Your task to perform on an android device: turn off smart reply in the gmail app Image 0: 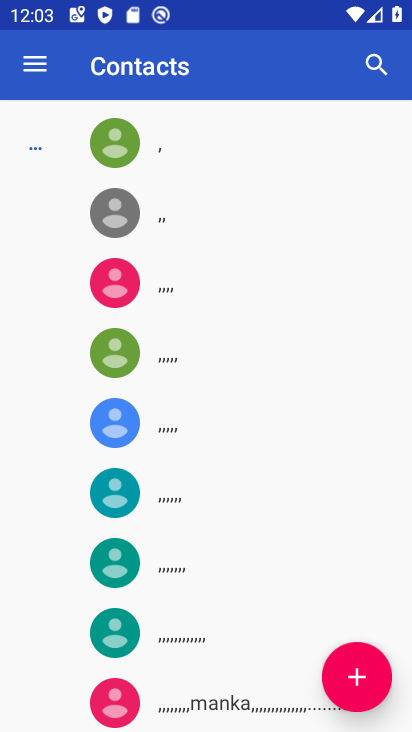
Step 0: press home button
Your task to perform on an android device: turn off smart reply in the gmail app Image 1: 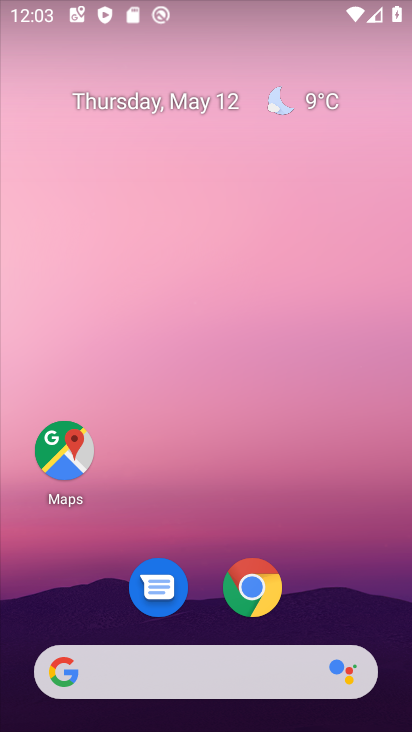
Step 1: drag from (314, 553) to (318, 194)
Your task to perform on an android device: turn off smart reply in the gmail app Image 2: 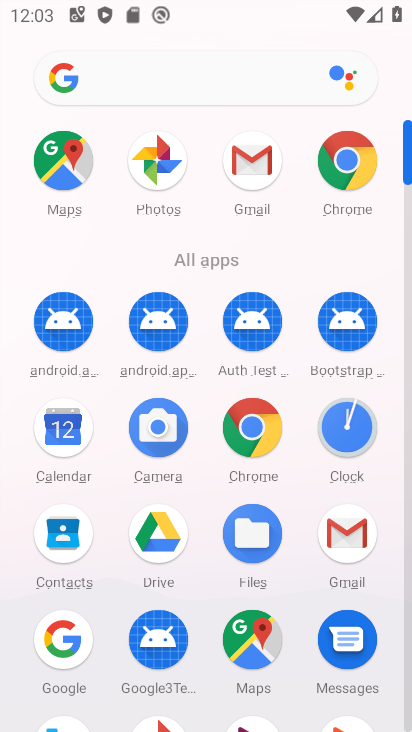
Step 2: click (254, 153)
Your task to perform on an android device: turn off smart reply in the gmail app Image 3: 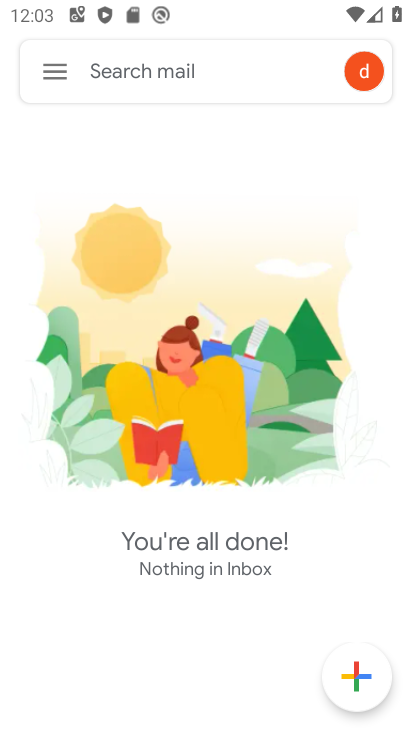
Step 3: click (47, 64)
Your task to perform on an android device: turn off smart reply in the gmail app Image 4: 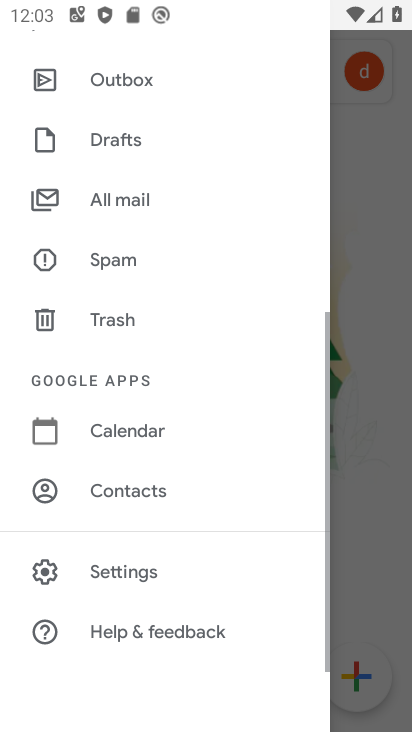
Step 4: click (147, 560)
Your task to perform on an android device: turn off smart reply in the gmail app Image 5: 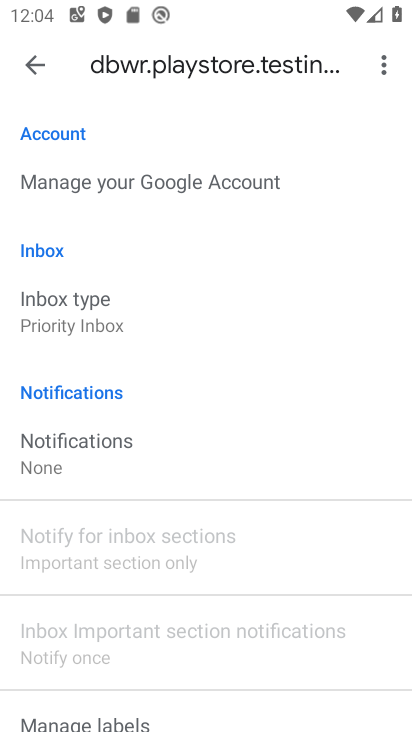
Step 5: drag from (186, 543) to (223, 210)
Your task to perform on an android device: turn off smart reply in the gmail app Image 6: 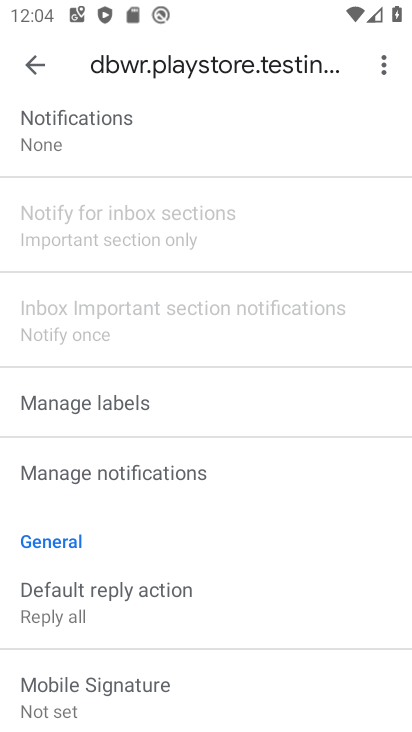
Step 6: drag from (158, 612) to (226, 163)
Your task to perform on an android device: turn off smart reply in the gmail app Image 7: 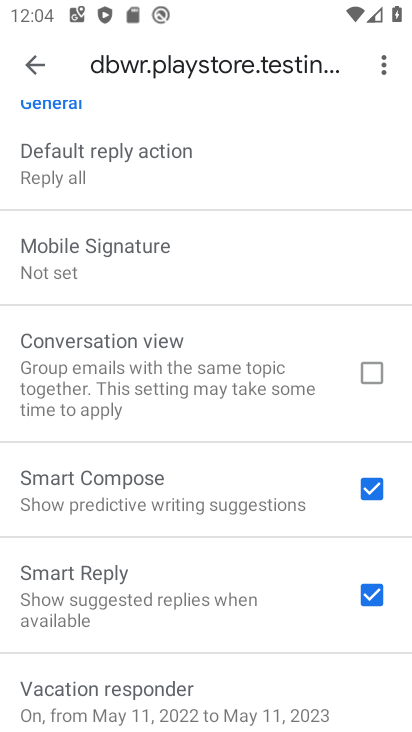
Step 7: click (367, 590)
Your task to perform on an android device: turn off smart reply in the gmail app Image 8: 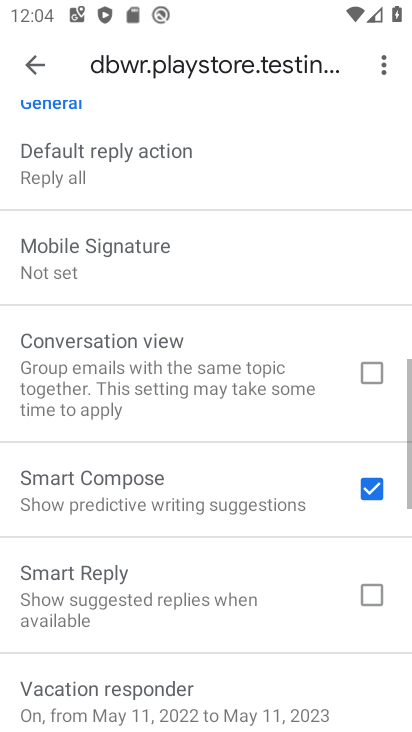
Step 8: task complete